Your task to perform on an android device: turn pop-ups on in chrome Image 0: 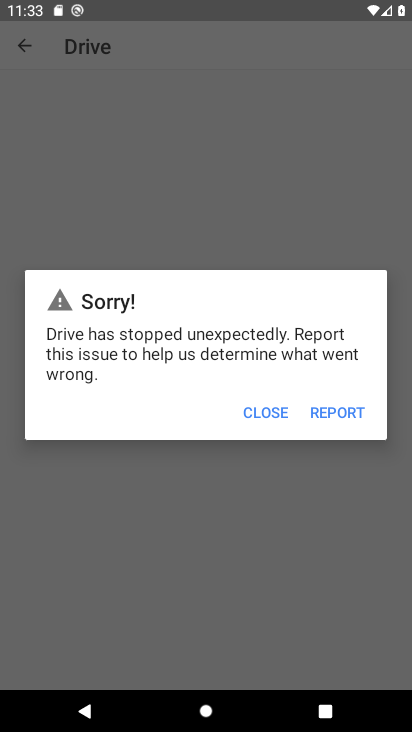
Step 0: press home button
Your task to perform on an android device: turn pop-ups on in chrome Image 1: 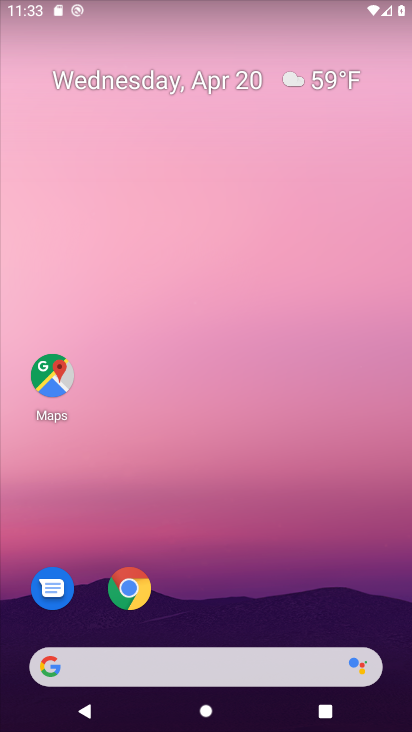
Step 1: click (127, 587)
Your task to perform on an android device: turn pop-ups on in chrome Image 2: 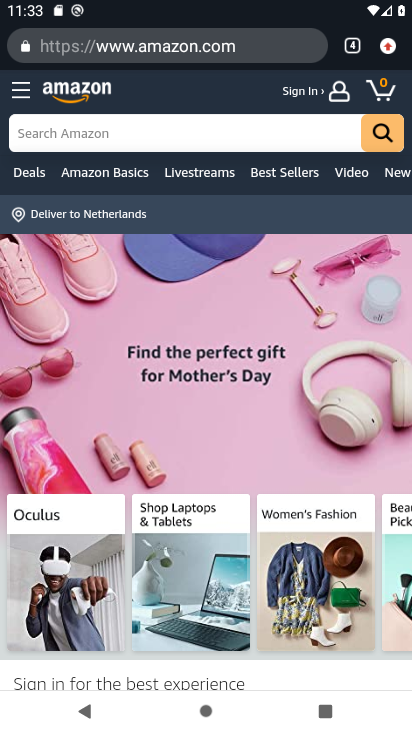
Step 2: click (384, 49)
Your task to perform on an android device: turn pop-ups on in chrome Image 3: 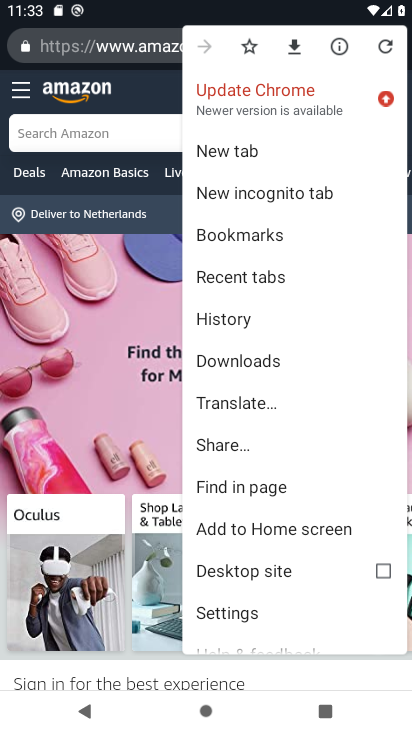
Step 3: click (217, 612)
Your task to perform on an android device: turn pop-ups on in chrome Image 4: 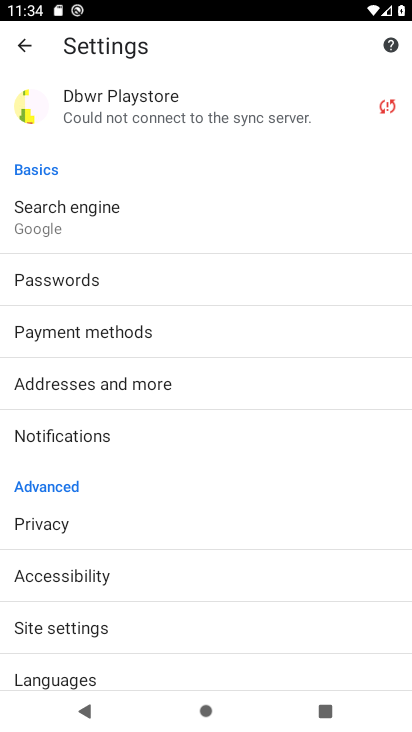
Step 4: drag from (217, 612) to (255, 411)
Your task to perform on an android device: turn pop-ups on in chrome Image 5: 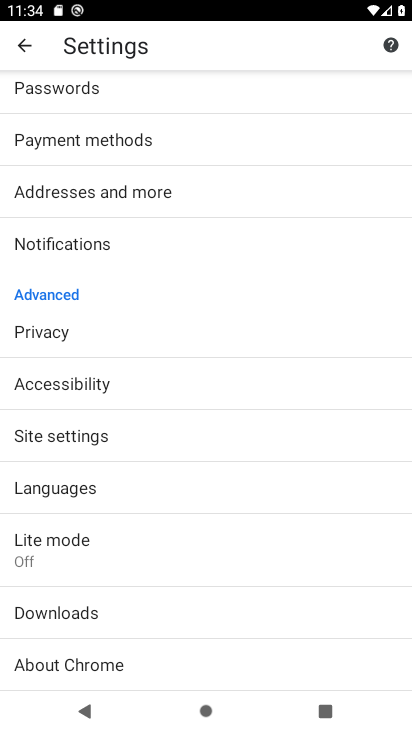
Step 5: click (56, 440)
Your task to perform on an android device: turn pop-ups on in chrome Image 6: 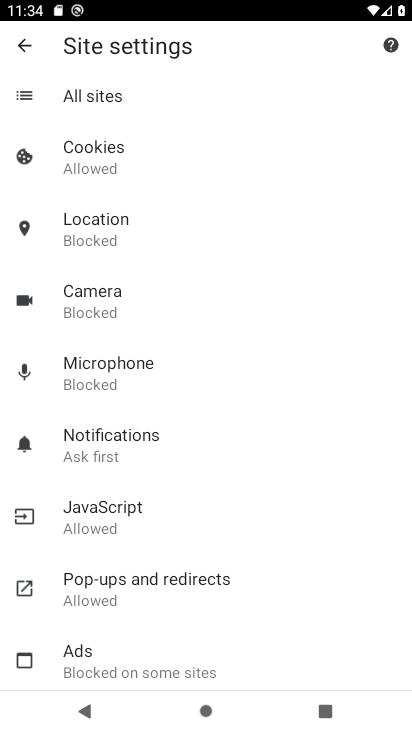
Step 6: click (102, 587)
Your task to perform on an android device: turn pop-ups on in chrome Image 7: 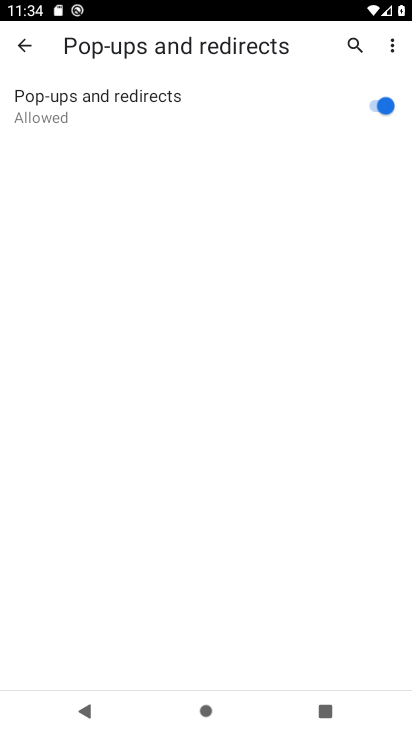
Step 7: task complete